Your task to perform on an android device: change keyboard looks Image 0: 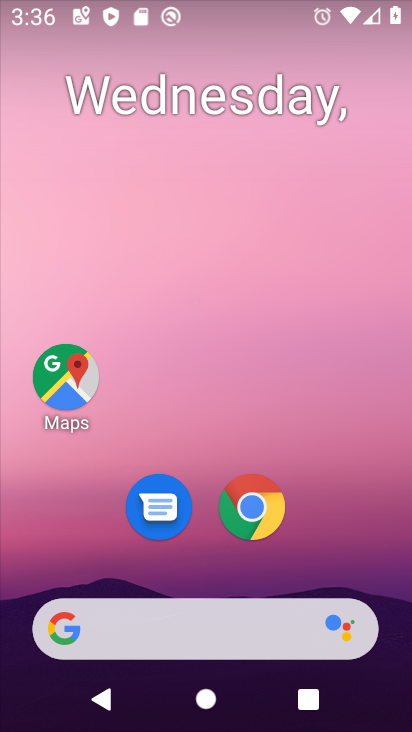
Step 0: drag from (297, 535) to (275, 161)
Your task to perform on an android device: change keyboard looks Image 1: 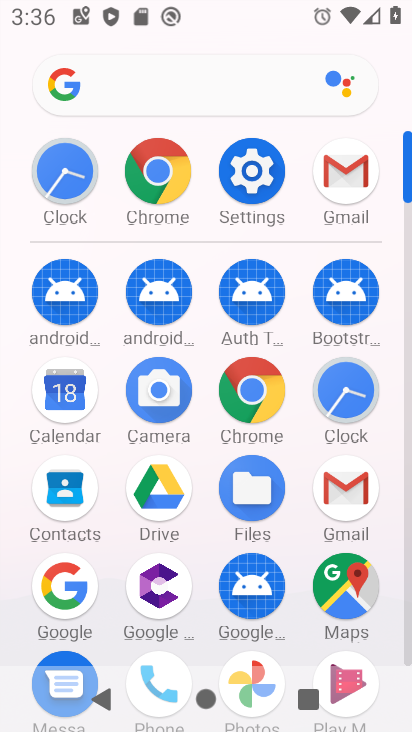
Step 1: click (269, 182)
Your task to perform on an android device: change keyboard looks Image 2: 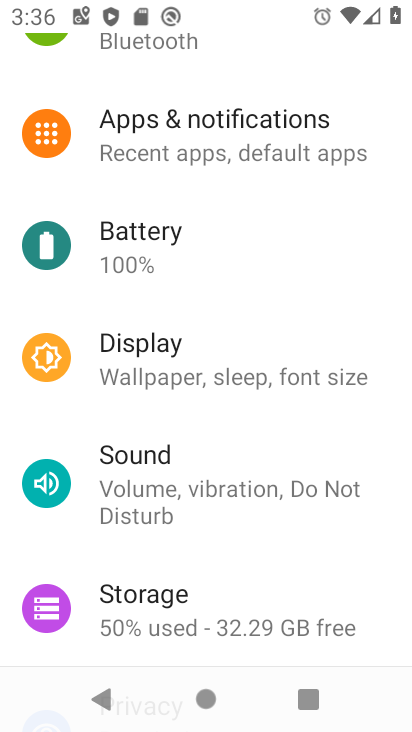
Step 2: click (224, 383)
Your task to perform on an android device: change keyboard looks Image 3: 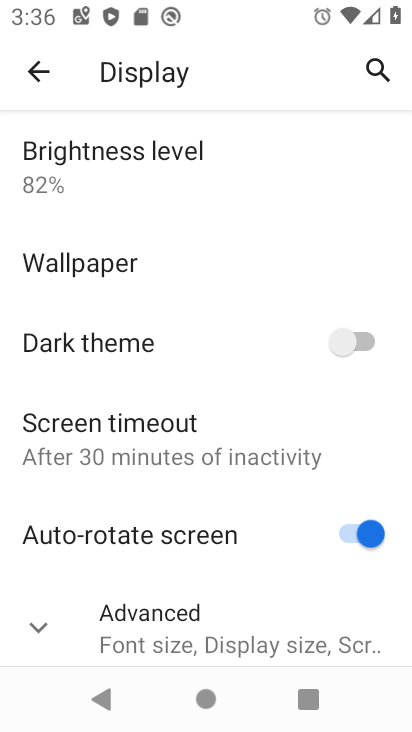
Step 3: drag from (197, 444) to (202, 145)
Your task to perform on an android device: change keyboard looks Image 4: 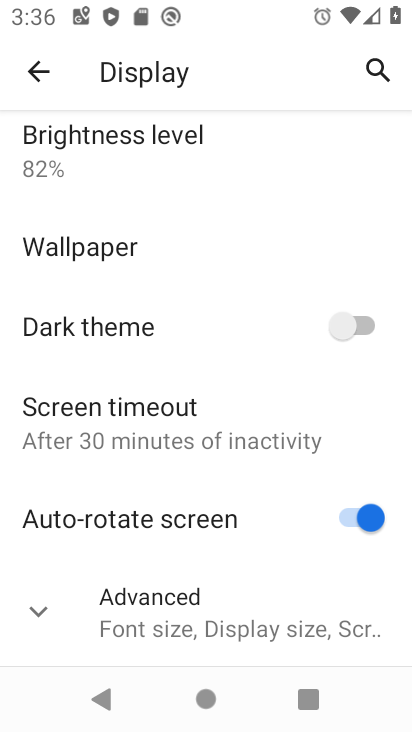
Step 4: click (222, 604)
Your task to perform on an android device: change keyboard looks Image 5: 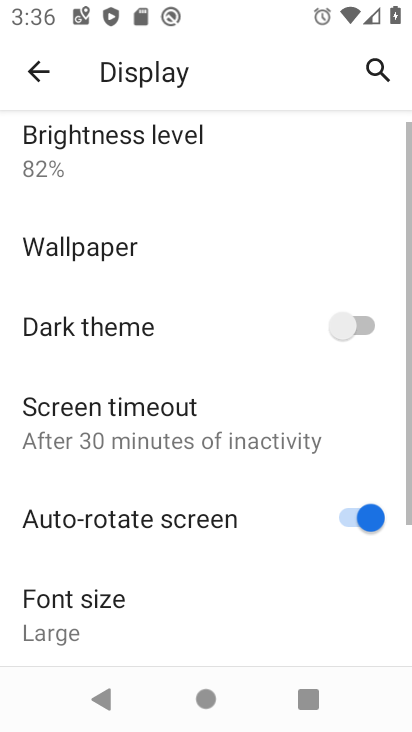
Step 5: task complete